Your task to perform on an android device: see creations saved in the google photos Image 0: 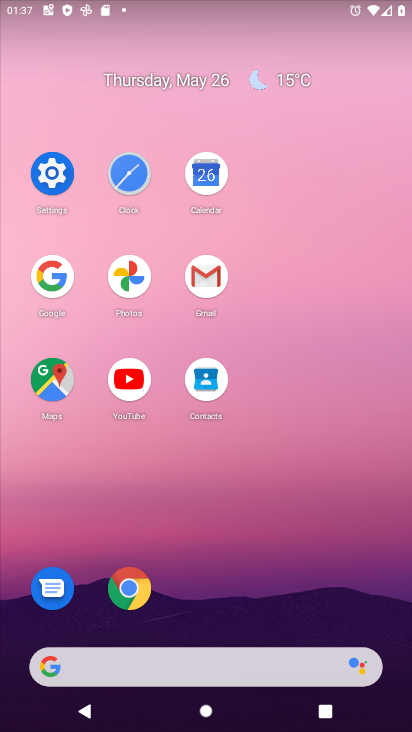
Step 0: drag from (299, 581) to (330, 225)
Your task to perform on an android device: see creations saved in the google photos Image 1: 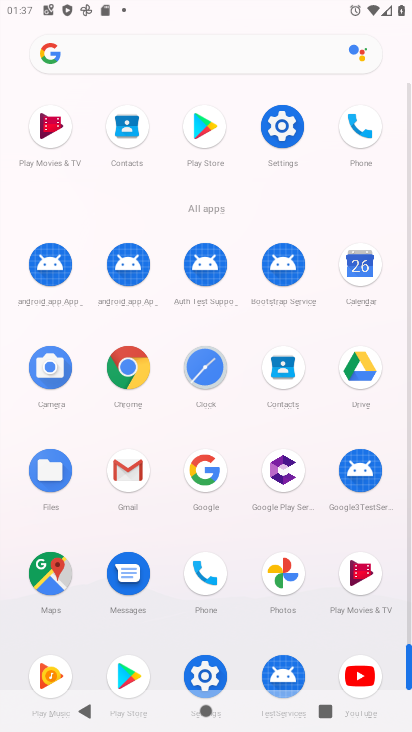
Step 1: click (287, 583)
Your task to perform on an android device: see creations saved in the google photos Image 2: 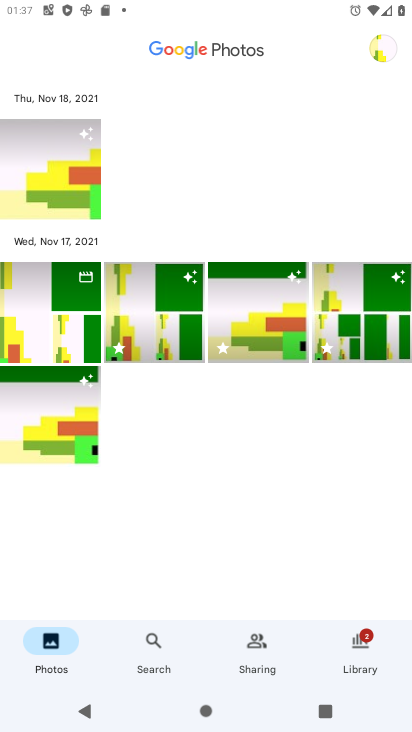
Step 2: click (162, 650)
Your task to perform on an android device: see creations saved in the google photos Image 3: 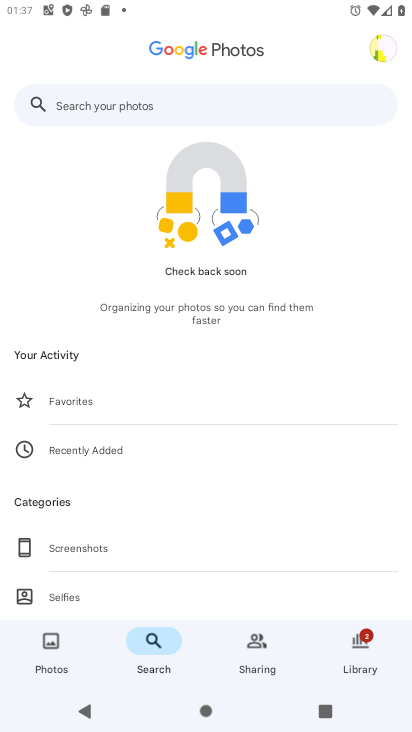
Step 3: drag from (220, 505) to (225, 220)
Your task to perform on an android device: see creations saved in the google photos Image 4: 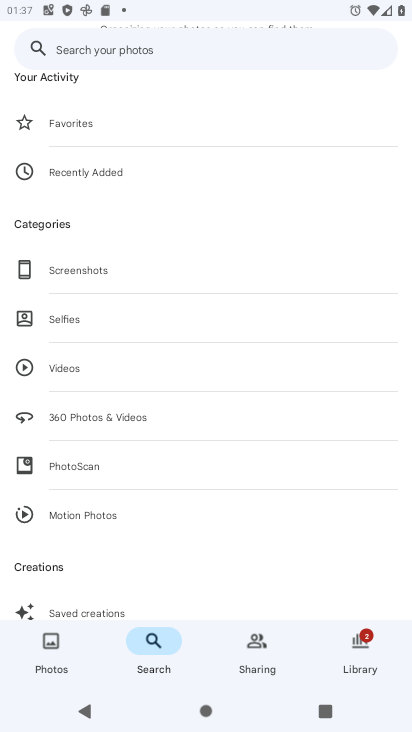
Step 4: drag from (214, 553) to (253, 217)
Your task to perform on an android device: see creations saved in the google photos Image 5: 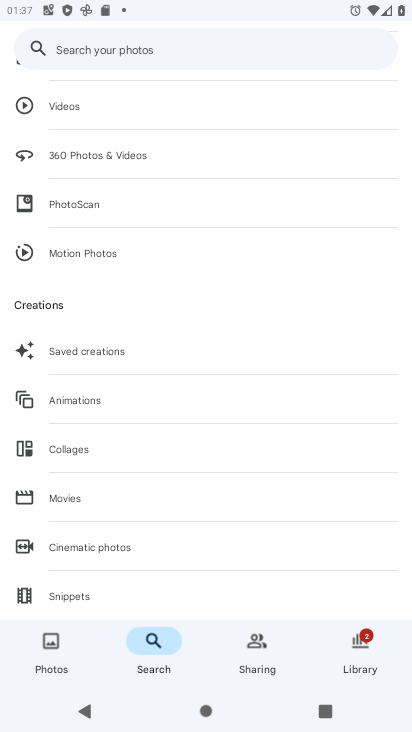
Step 5: click (92, 351)
Your task to perform on an android device: see creations saved in the google photos Image 6: 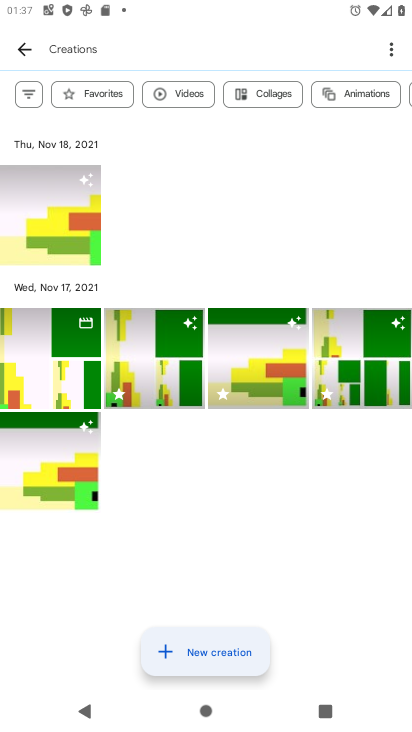
Step 6: task complete